Your task to perform on an android device: Open calendar and show me the second week of next month Image 0: 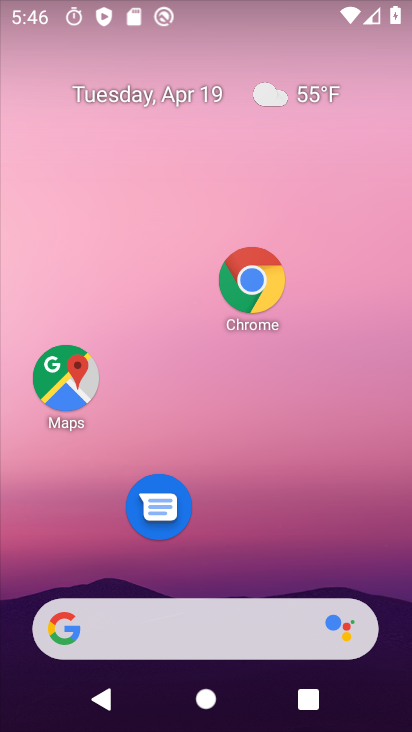
Step 0: drag from (187, 581) to (228, 251)
Your task to perform on an android device: Open calendar and show me the second week of next month Image 1: 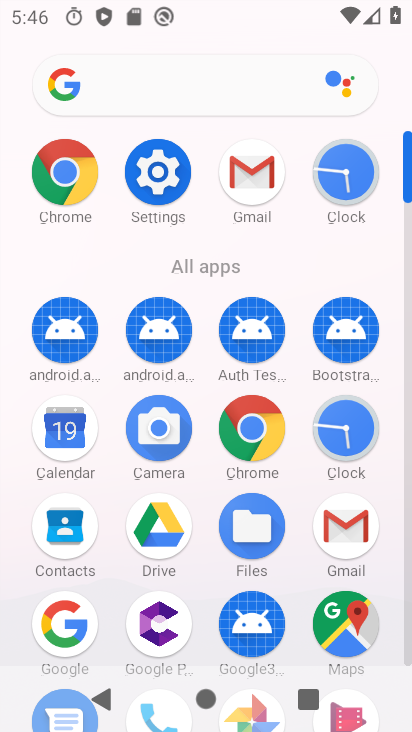
Step 1: click (66, 436)
Your task to perform on an android device: Open calendar and show me the second week of next month Image 2: 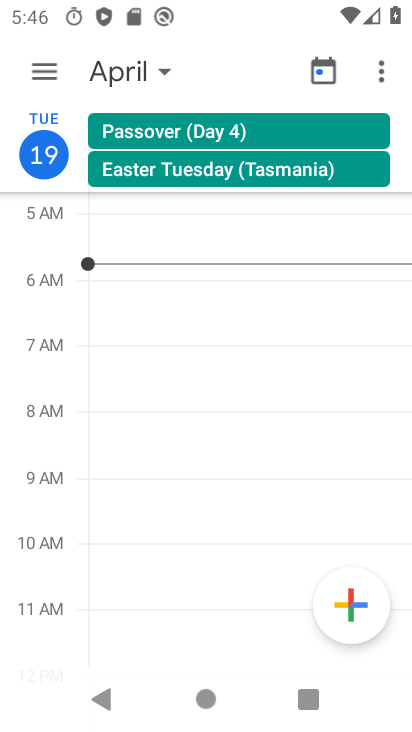
Step 2: click (142, 74)
Your task to perform on an android device: Open calendar and show me the second week of next month Image 3: 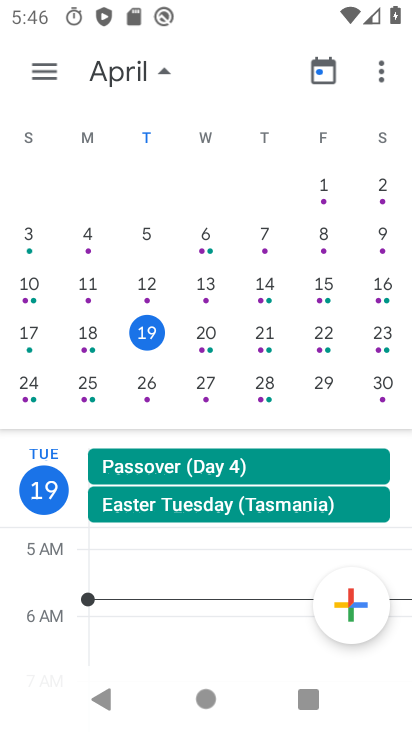
Step 3: drag from (386, 344) to (13, 424)
Your task to perform on an android device: Open calendar and show me the second week of next month Image 4: 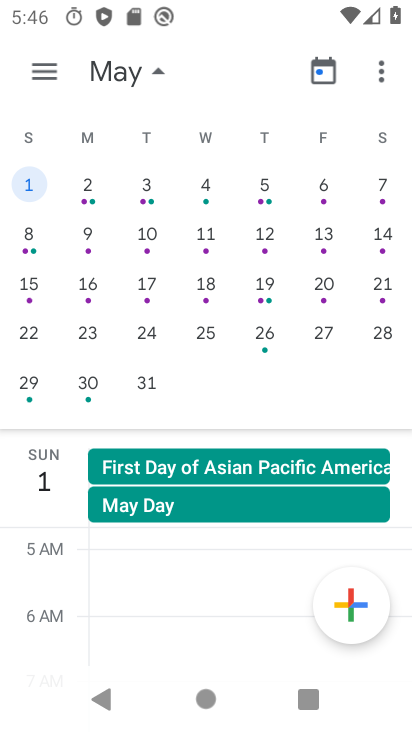
Step 4: drag from (346, 303) to (6, 610)
Your task to perform on an android device: Open calendar and show me the second week of next month Image 5: 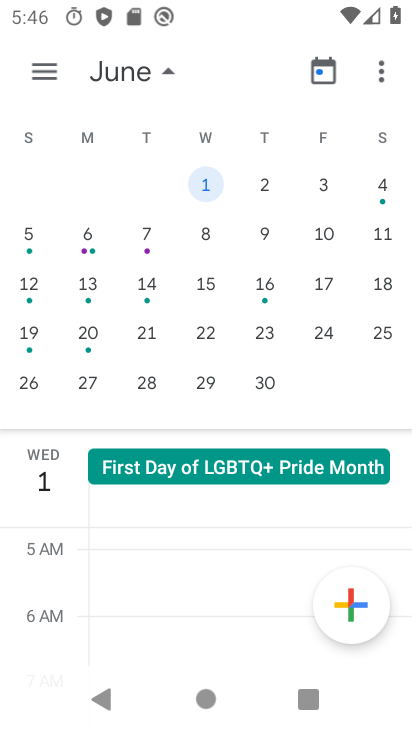
Step 5: drag from (13, 309) to (277, 316)
Your task to perform on an android device: Open calendar and show me the second week of next month Image 6: 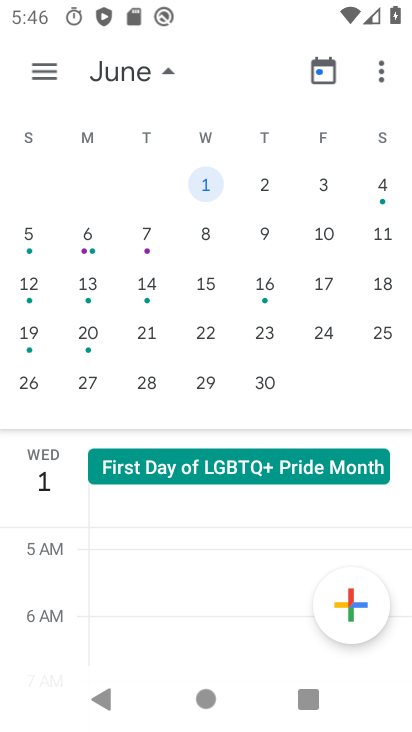
Step 6: drag from (70, 308) to (369, 332)
Your task to perform on an android device: Open calendar and show me the second week of next month Image 7: 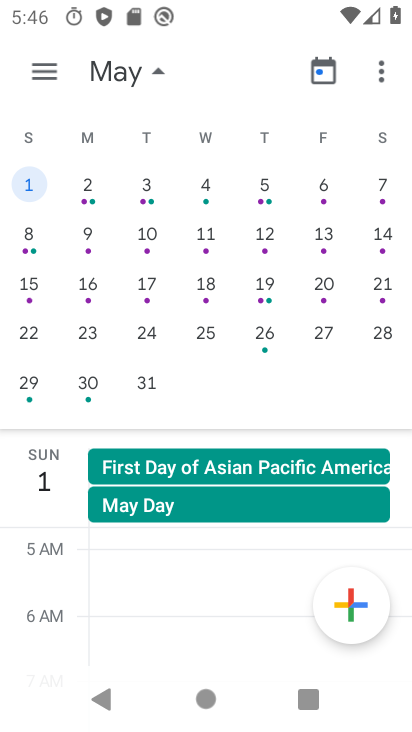
Step 7: click (31, 235)
Your task to perform on an android device: Open calendar and show me the second week of next month Image 8: 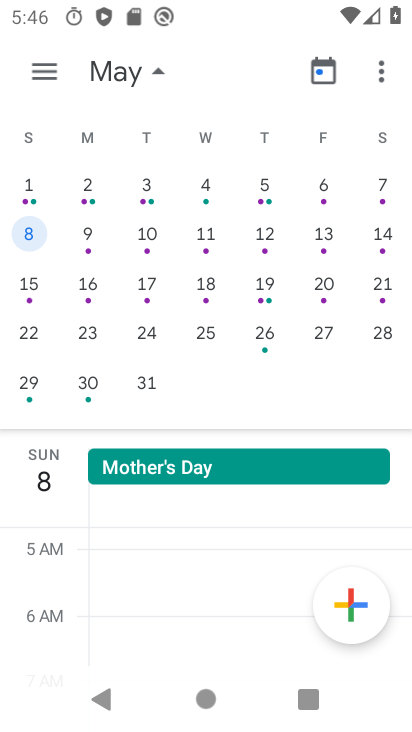
Step 8: task complete